Your task to perform on an android device: Go to network settings Image 0: 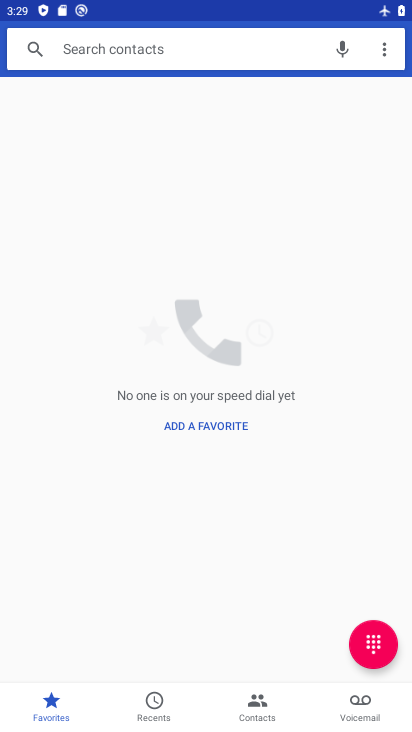
Step 0: press home button
Your task to perform on an android device: Go to network settings Image 1: 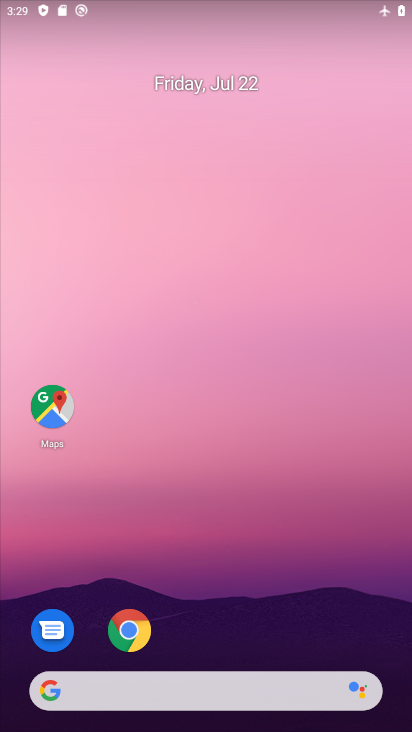
Step 1: drag from (200, 639) to (262, 93)
Your task to perform on an android device: Go to network settings Image 2: 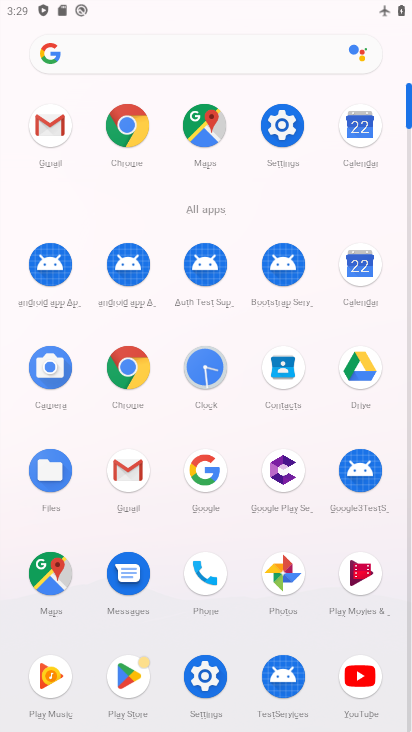
Step 2: click (206, 661)
Your task to perform on an android device: Go to network settings Image 3: 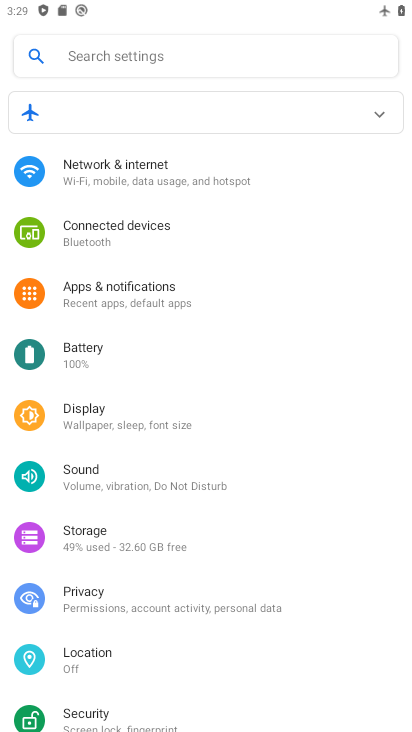
Step 3: click (153, 184)
Your task to perform on an android device: Go to network settings Image 4: 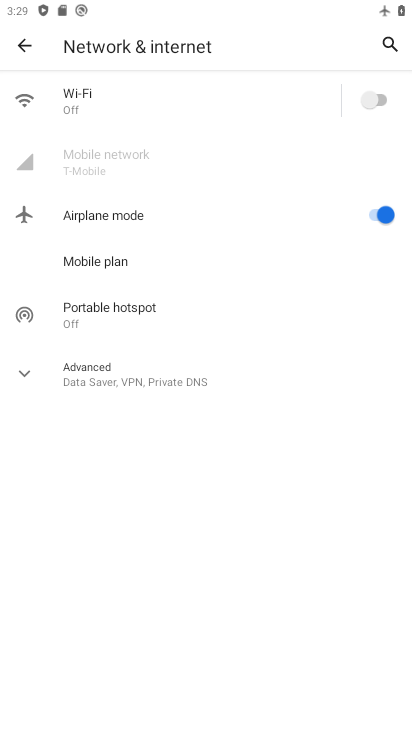
Step 4: task complete